Your task to perform on an android device: Open location settings Image 0: 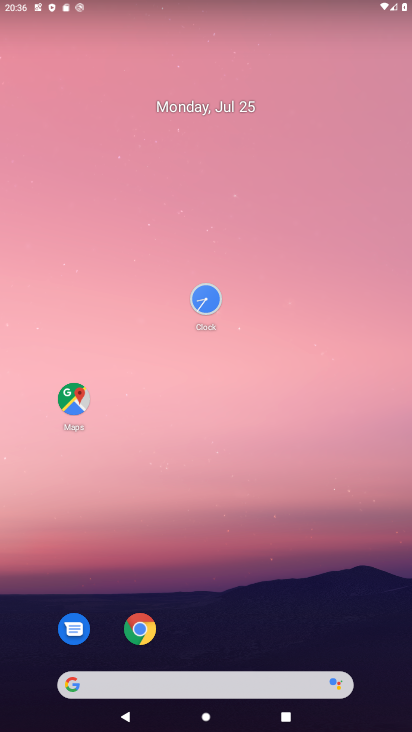
Step 0: drag from (230, 639) to (241, 7)
Your task to perform on an android device: Open location settings Image 1: 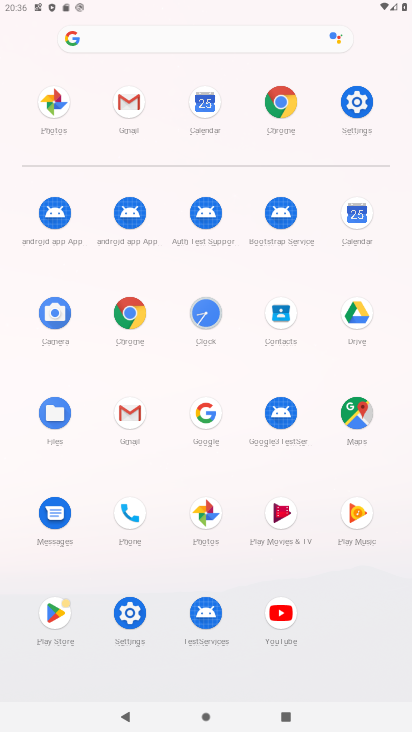
Step 1: click (127, 623)
Your task to perform on an android device: Open location settings Image 2: 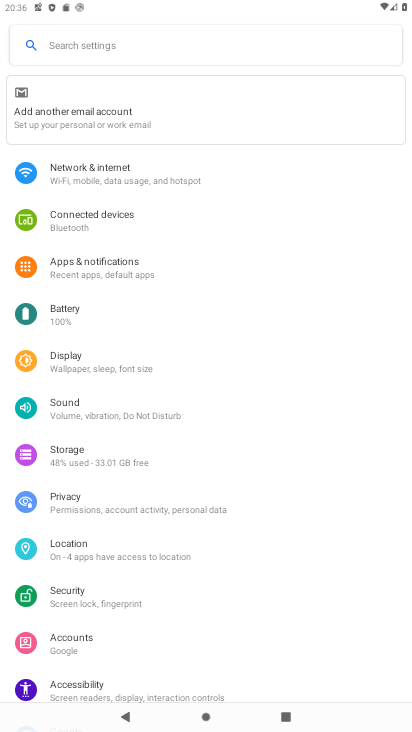
Step 2: click (89, 549)
Your task to perform on an android device: Open location settings Image 3: 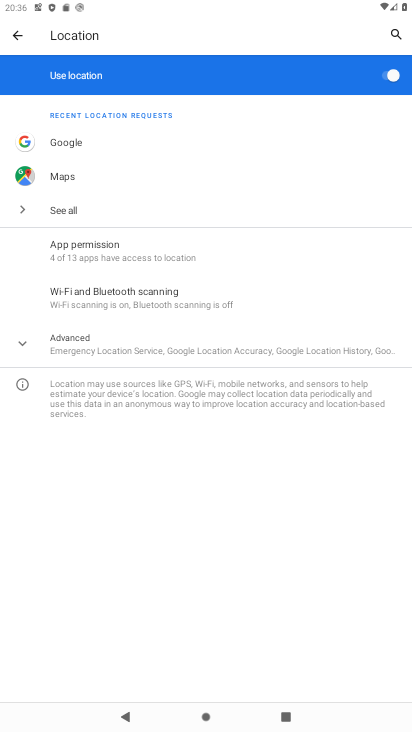
Step 3: task complete